Your task to perform on an android device: change notifications settings Image 0: 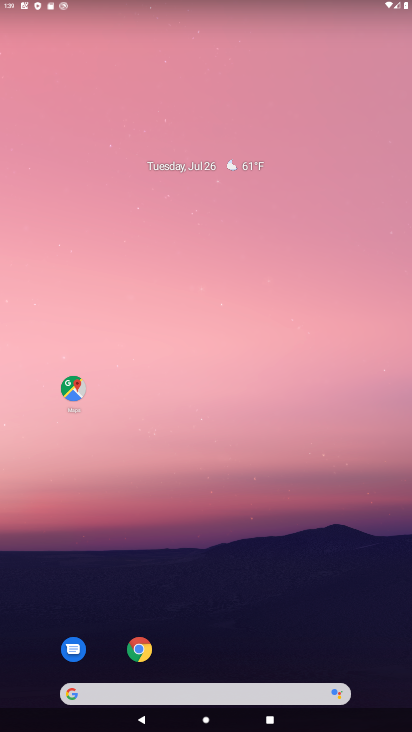
Step 0: drag from (197, 643) to (234, 212)
Your task to perform on an android device: change notifications settings Image 1: 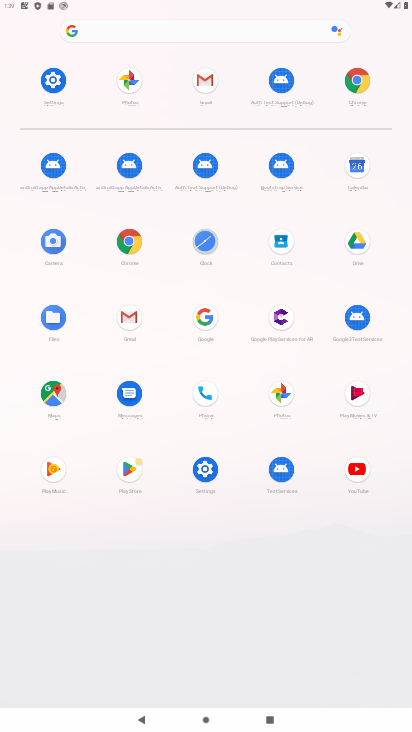
Step 1: click (199, 461)
Your task to perform on an android device: change notifications settings Image 2: 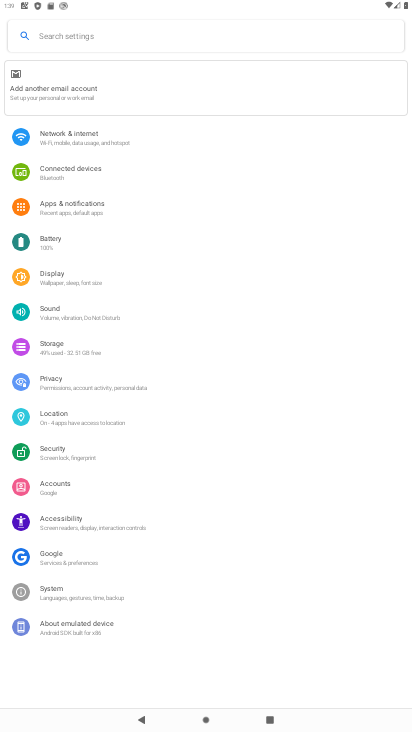
Step 2: click (113, 208)
Your task to perform on an android device: change notifications settings Image 3: 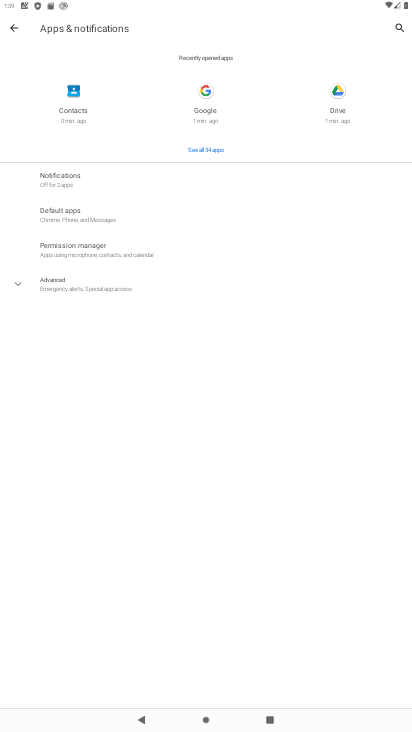
Step 3: click (91, 176)
Your task to perform on an android device: change notifications settings Image 4: 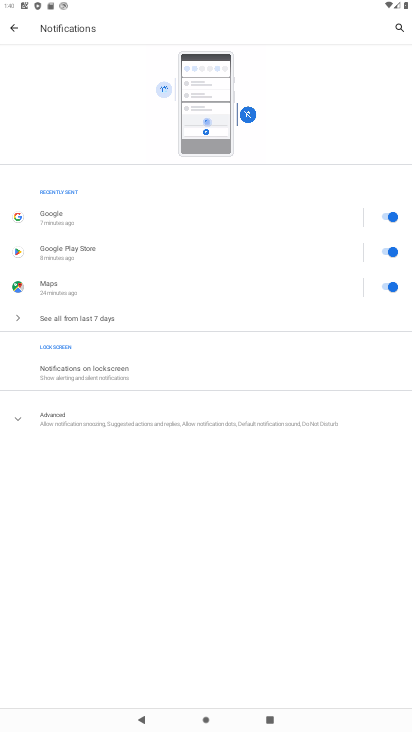
Step 4: click (39, 415)
Your task to perform on an android device: change notifications settings Image 5: 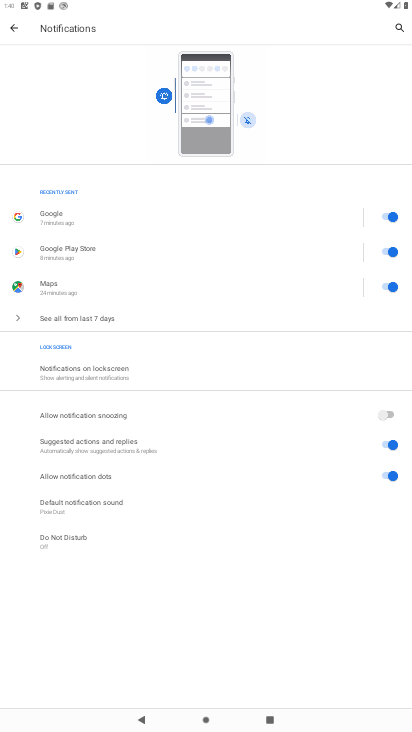
Step 5: task complete